Your task to perform on an android device: check out phone information Image 0: 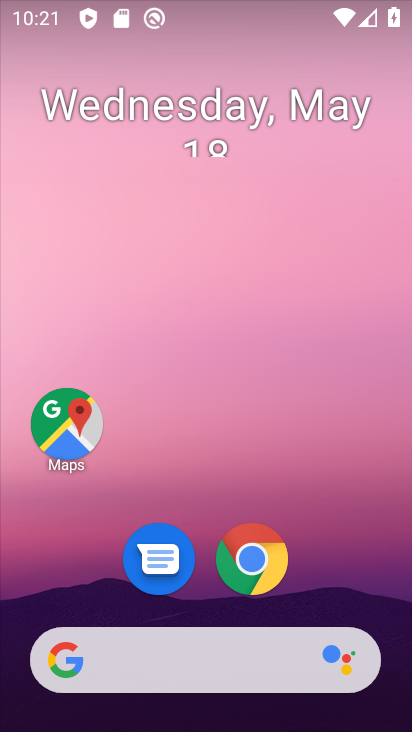
Step 0: drag from (201, 587) to (212, 230)
Your task to perform on an android device: check out phone information Image 1: 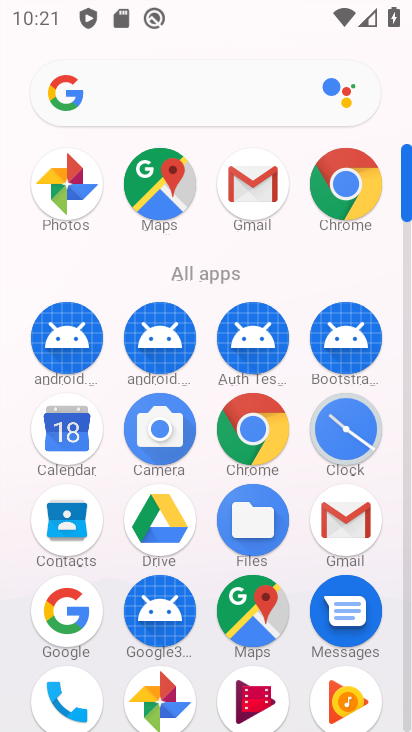
Step 1: drag from (232, 550) to (243, 281)
Your task to perform on an android device: check out phone information Image 2: 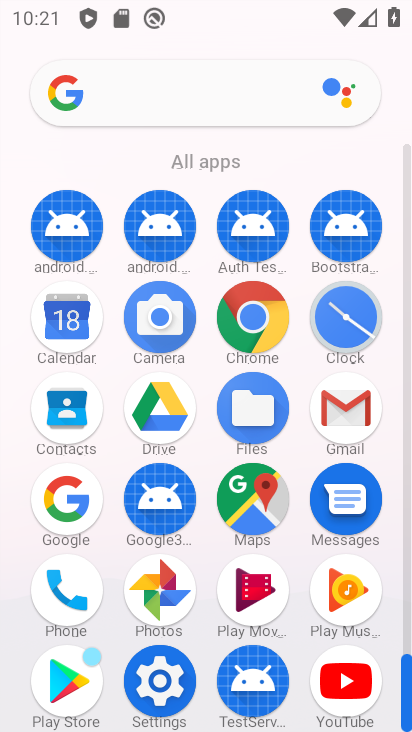
Step 2: click (163, 668)
Your task to perform on an android device: check out phone information Image 3: 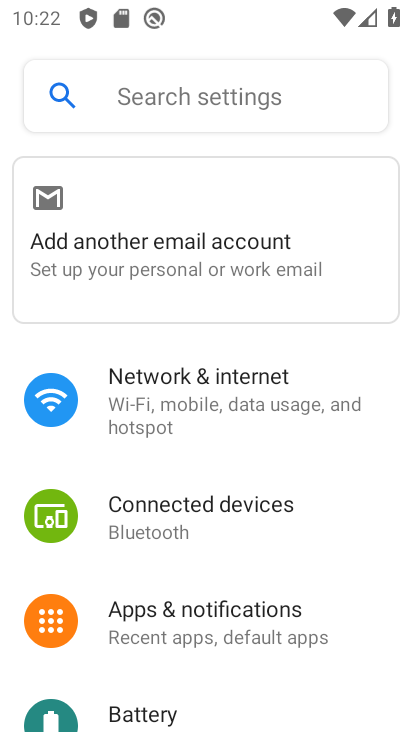
Step 3: task complete